Your task to perform on an android device: Open the Play Movies app and select the watchlist tab. Image 0: 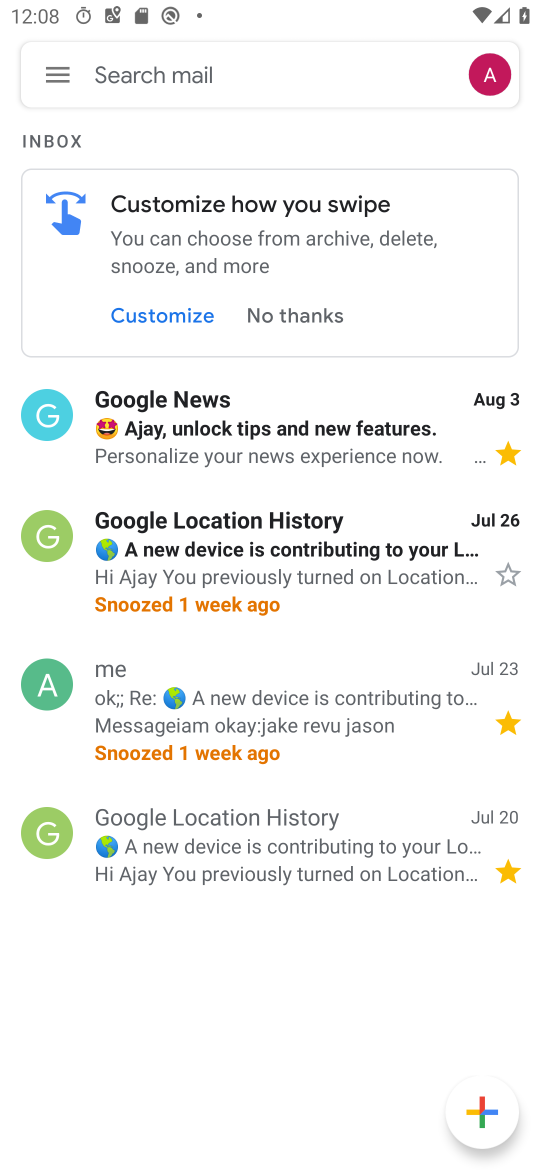
Step 0: press back button
Your task to perform on an android device: Open the Play Movies app and select the watchlist tab. Image 1: 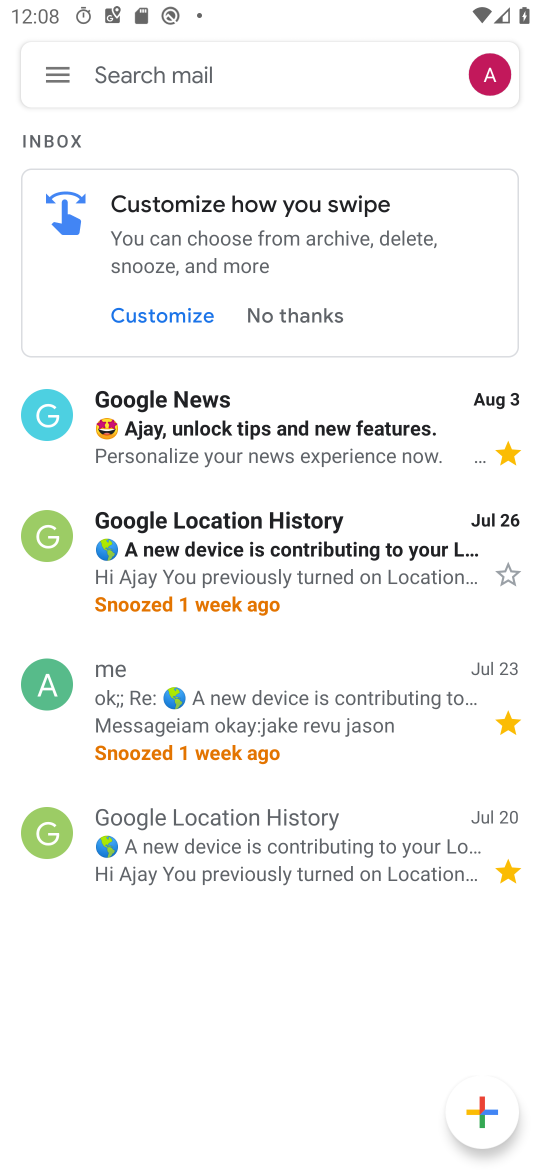
Step 1: press back button
Your task to perform on an android device: Open the Play Movies app and select the watchlist tab. Image 2: 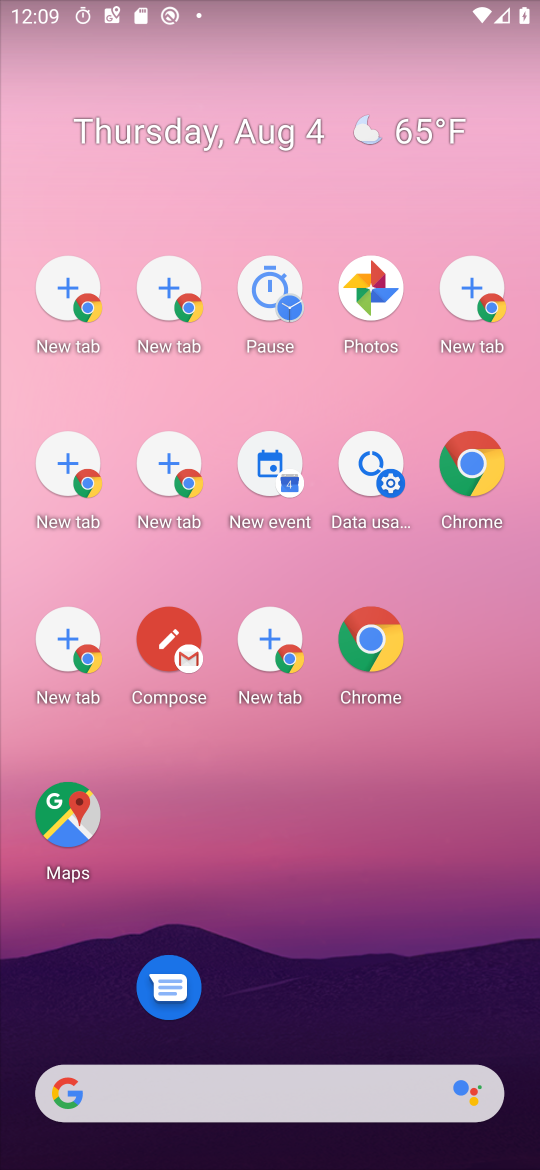
Step 2: drag from (278, 643) to (339, 384)
Your task to perform on an android device: Open the Play Movies app and select the watchlist tab. Image 3: 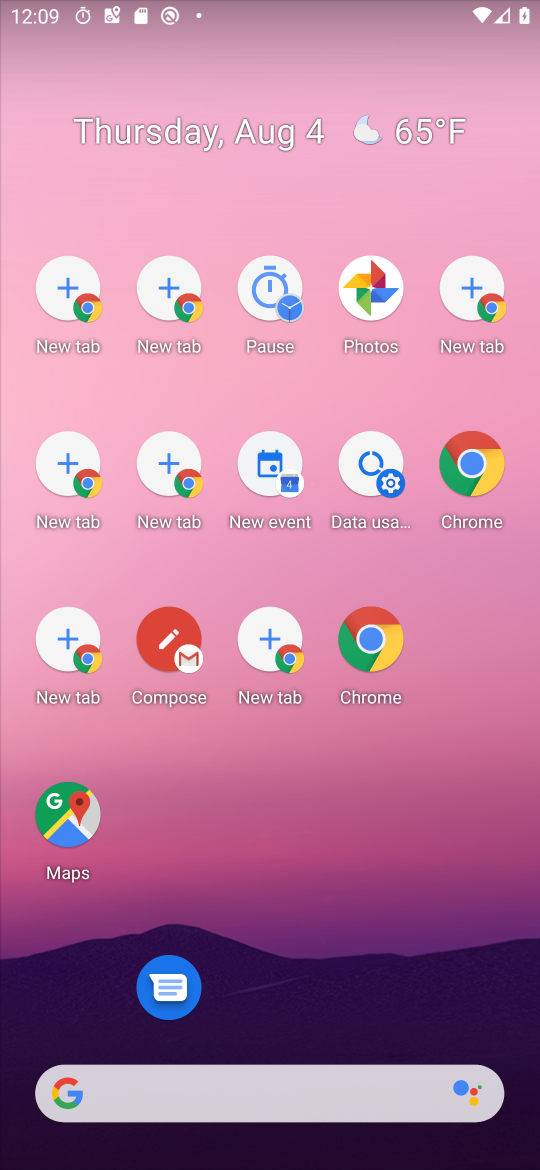
Step 3: drag from (271, 161) to (124, 308)
Your task to perform on an android device: Open the Play Movies app and select the watchlist tab. Image 4: 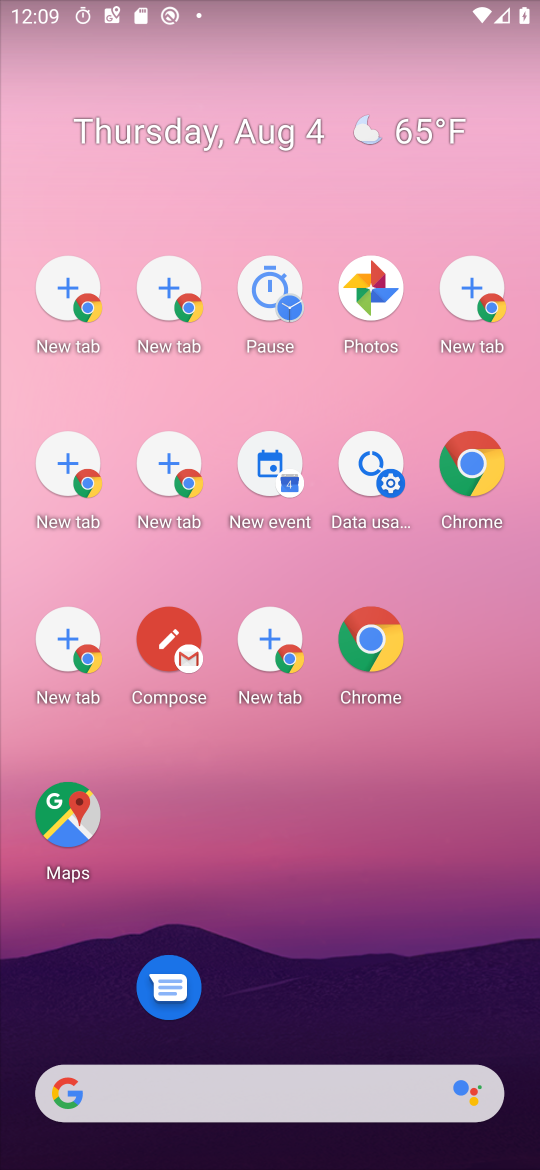
Step 4: drag from (222, 505) to (281, 265)
Your task to perform on an android device: Open the Play Movies app and select the watchlist tab. Image 5: 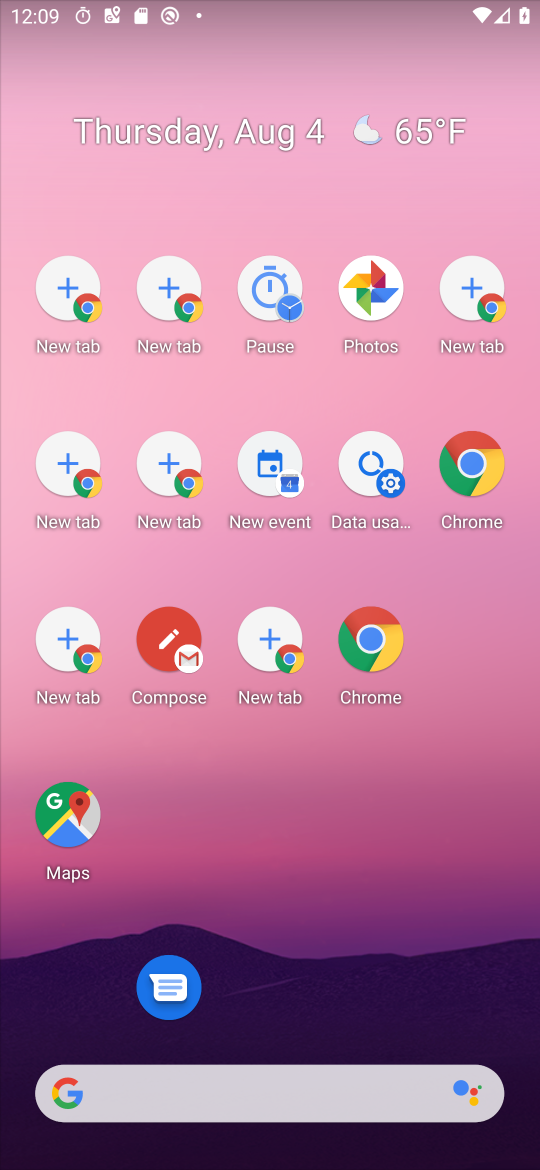
Step 5: drag from (331, 540) to (248, 212)
Your task to perform on an android device: Open the Play Movies app and select the watchlist tab. Image 6: 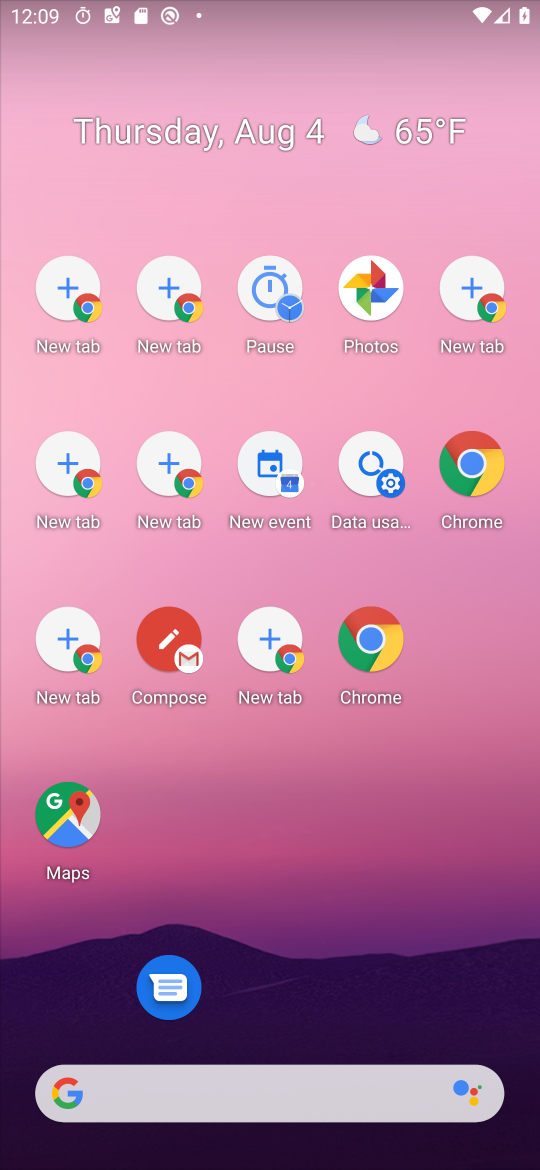
Step 6: drag from (236, 205) to (208, 161)
Your task to perform on an android device: Open the Play Movies app and select the watchlist tab. Image 7: 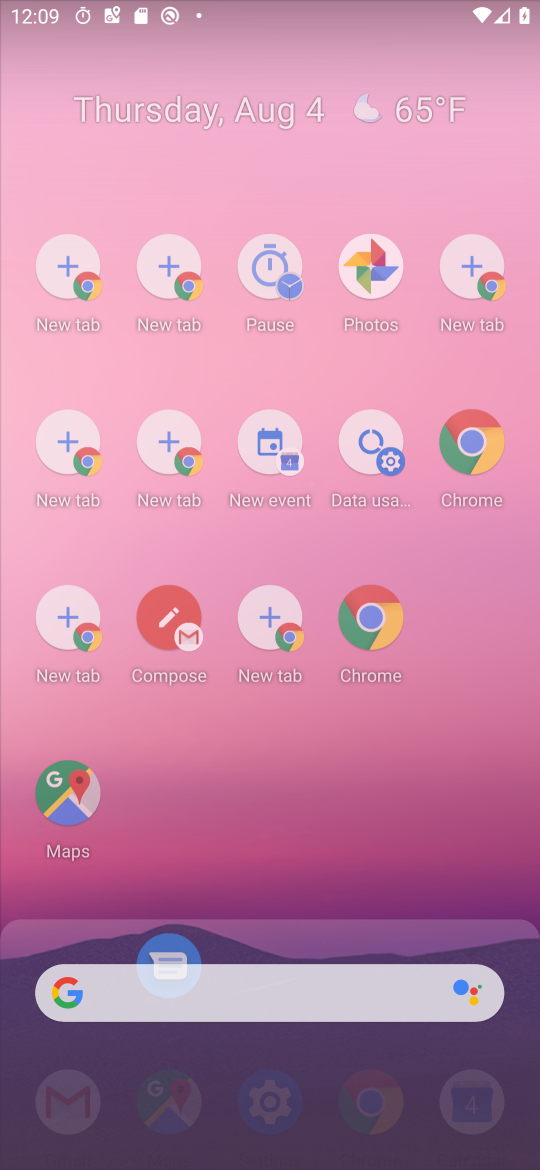
Step 7: drag from (410, 296) to (250, 413)
Your task to perform on an android device: Open the Play Movies app and select the watchlist tab. Image 8: 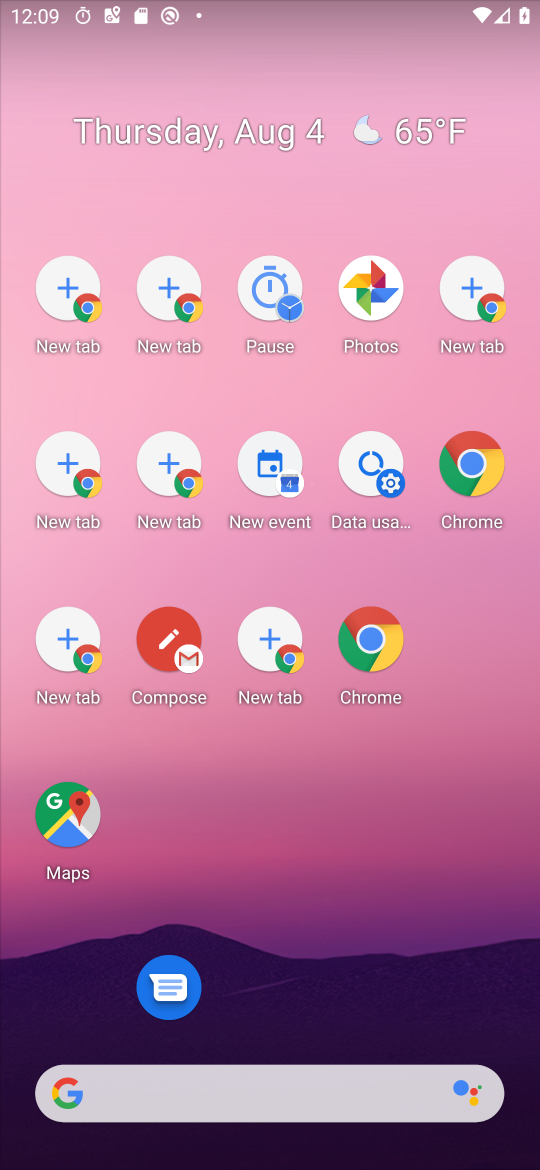
Step 8: drag from (273, 590) to (273, 318)
Your task to perform on an android device: Open the Play Movies app and select the watchlist tab. Image 9: 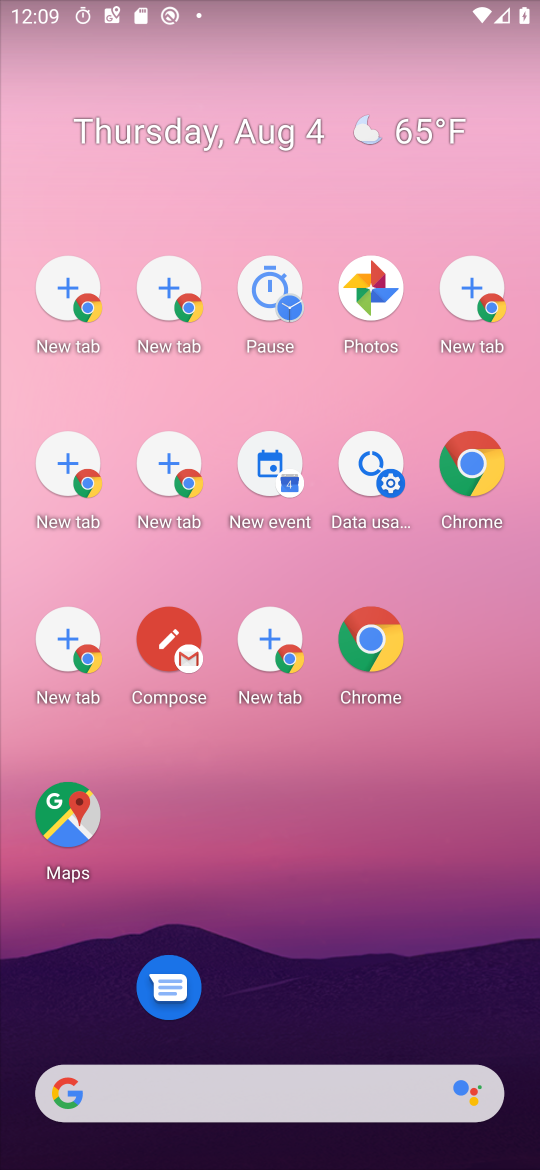
Step 9: drag from (285, 528) to (248, 263)
Your task to perform on an android device: Open the Play Movies app and select the watchlist tab. Image 10: 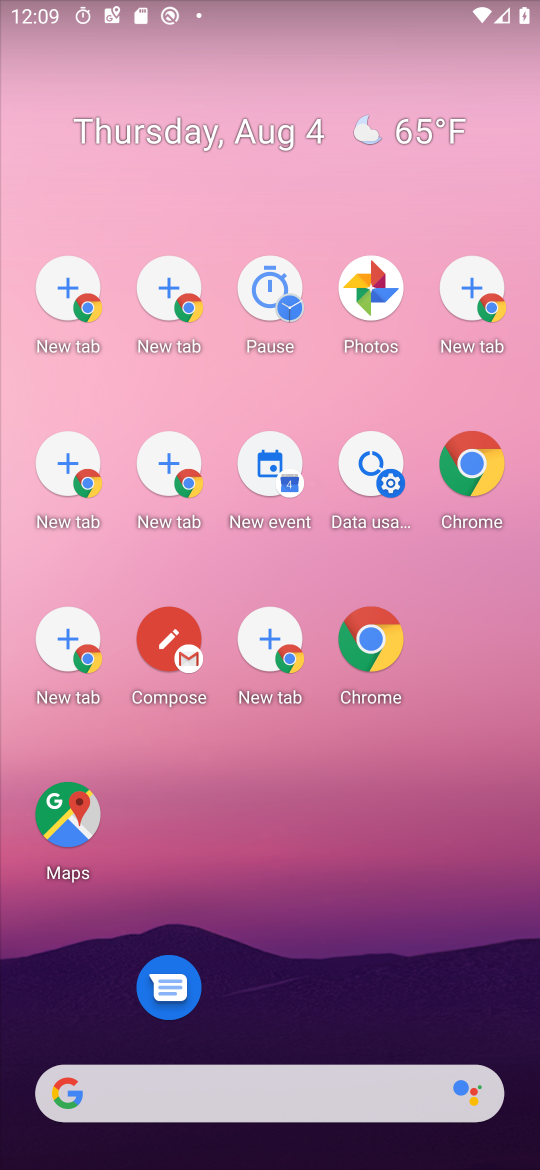
Step 10: drag from (347, 673) to (303, 362)
Your task to perform on an android device: Open the Play Movies app and select the watchlist tab. Image 11: 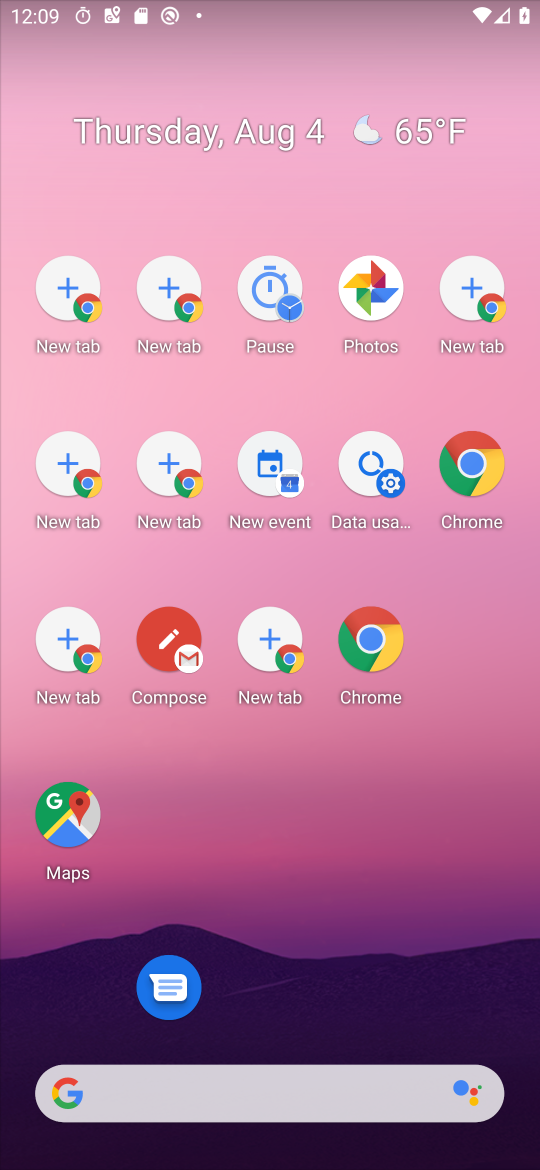
Step 11: drag from (334, 821) to (235, 68)
Your task to perform on an android device: Open the Play Movies app and select the watchlist tab. Image 12: 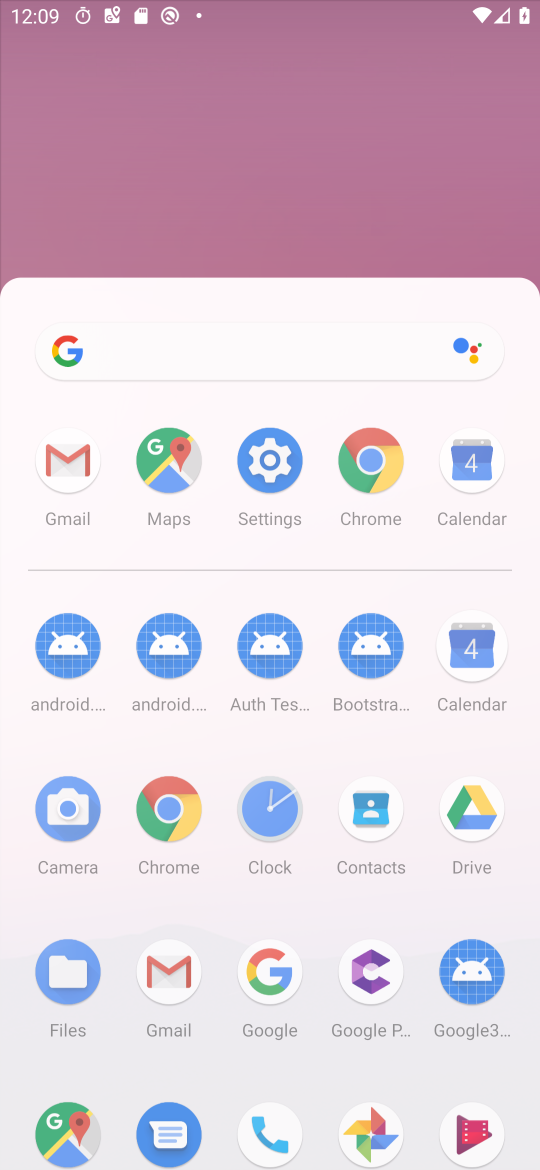
Step 12: drag from (353, 631) to (311, 283)
Your task to perform on an android device: Open the Play Movies app and select the watchlist tab. Image 13: 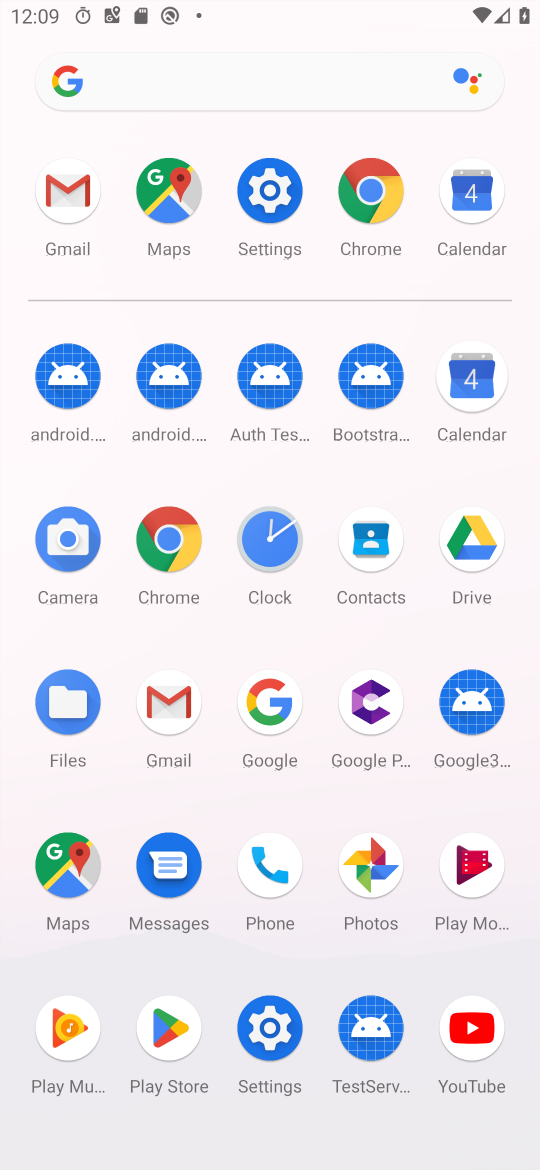
Step 13: click (470, 864)
Your task to perform on an android device: Open the Play Movies app and select the watchlist tab. Image 14: 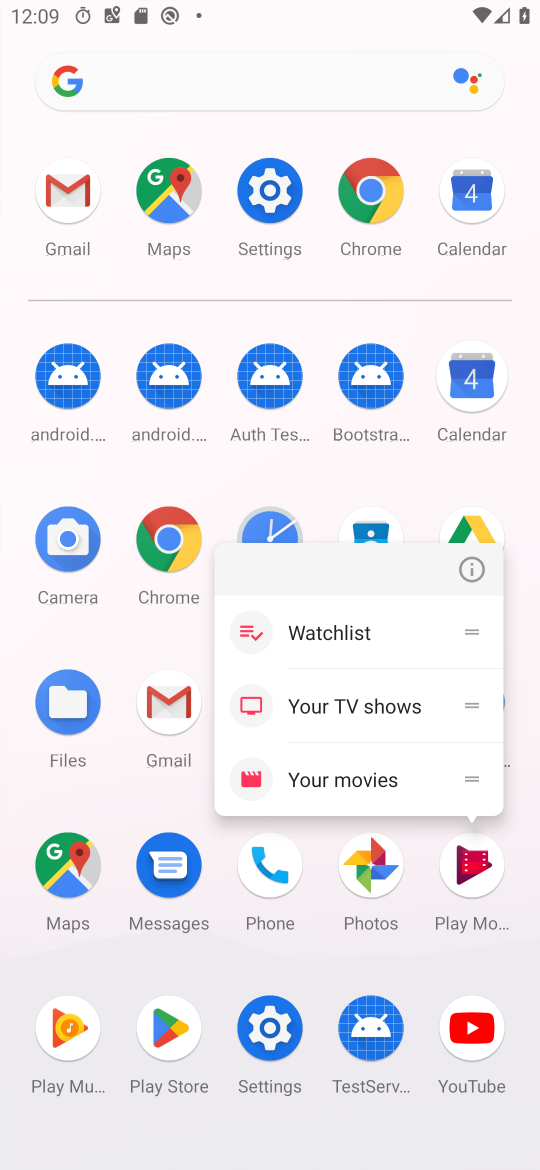
Step 14: click (317, 634)
Your task to perform on an android device: Open the Play Movies app and select the watchlist tab. Image 15: 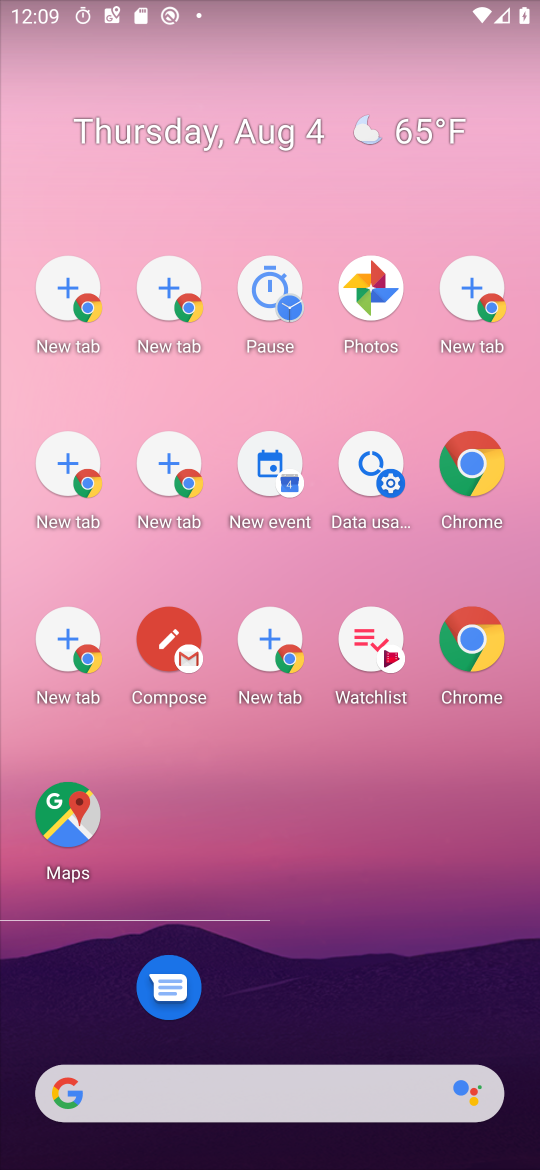
Step 15: drag from (250, 721) to (184, 304)
Your task to perform on an android device: Open the Play Movies app and select the watchlist tab. Image 16: 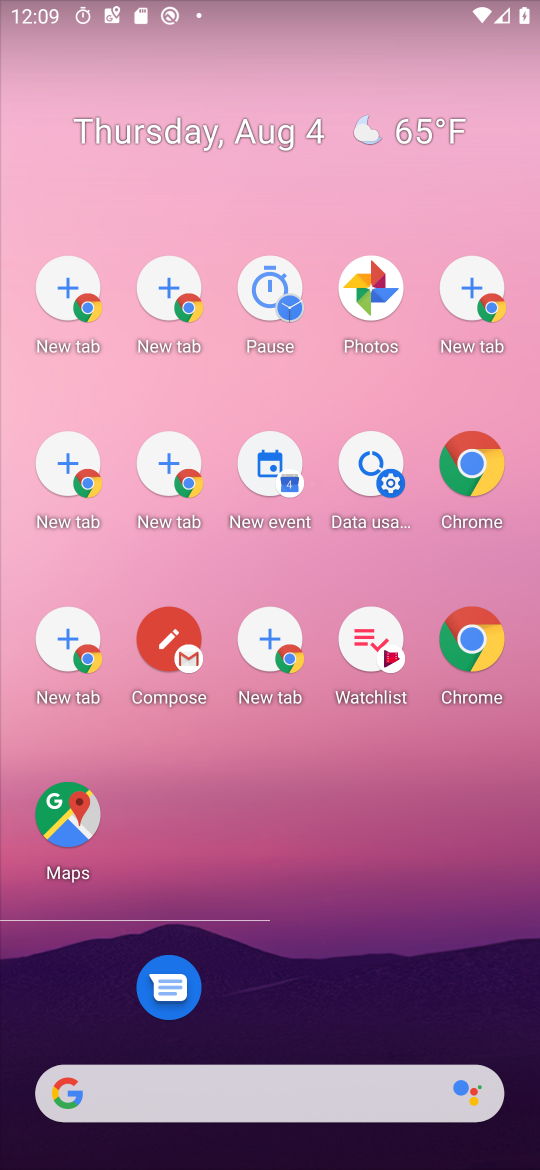
Step 16: drag from (310, 558) to (283, 369)
Your task to perform on an android device: Open the Play Movies app and select the watchlist tab. Image 17: 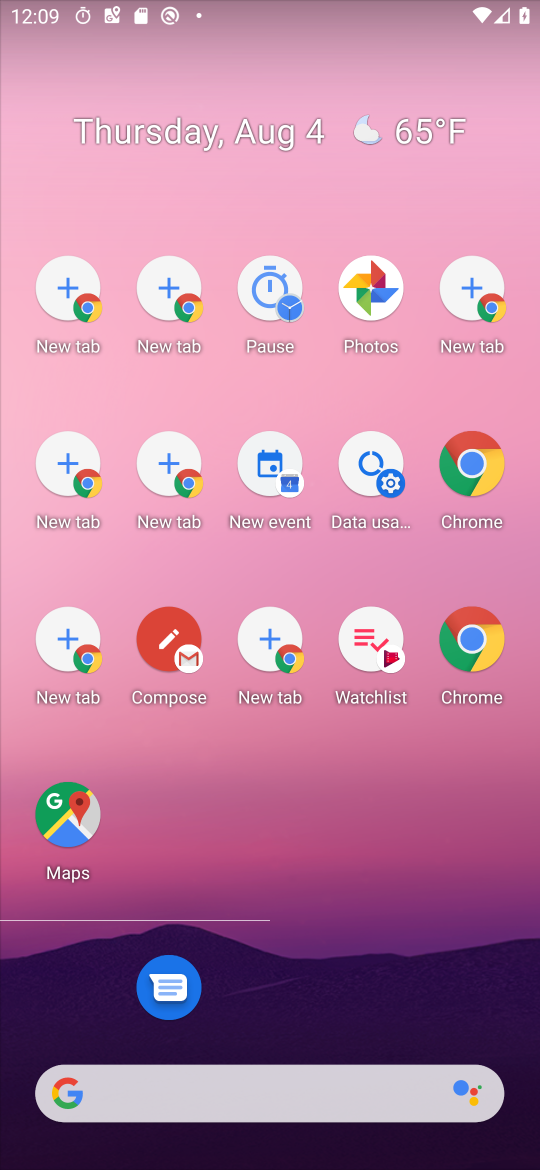
Step 17: drag from (397, 959) to (284, 315)
Your task to perform on an android device: Open the Play Movies app and select the watchlist tab. Image 18: 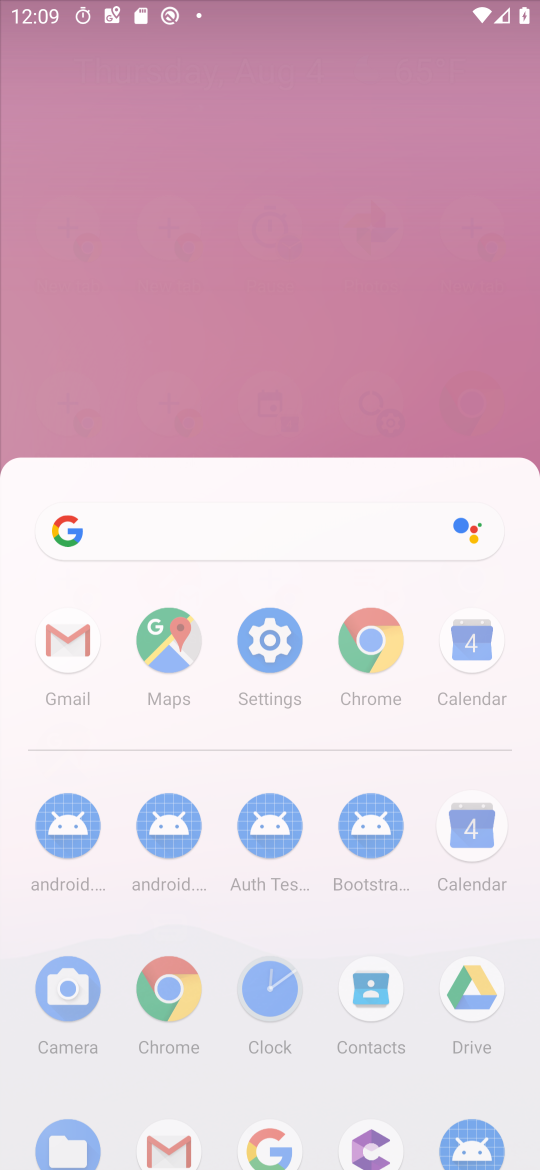
Step 18: drag from (350, 809) to (299, 412)
Your task to perform on an android device: Open the Play Movies app and select the watchlist tab. Image 19: 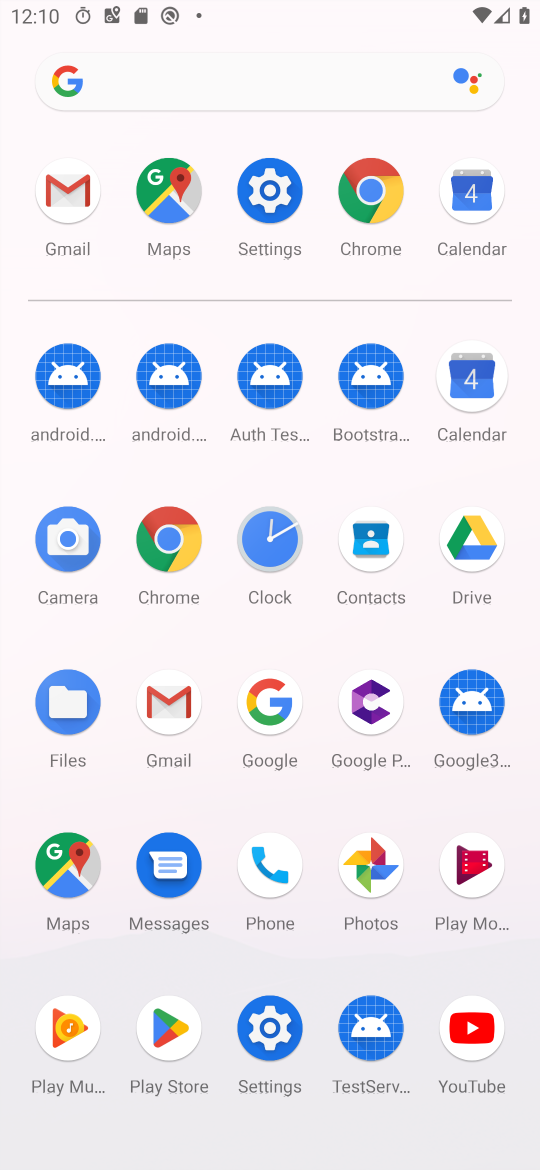
Step 19: click (474, 857)
Your task to perform on an android device: Open the Play Movies app and select the watchlist tab. Image 20: 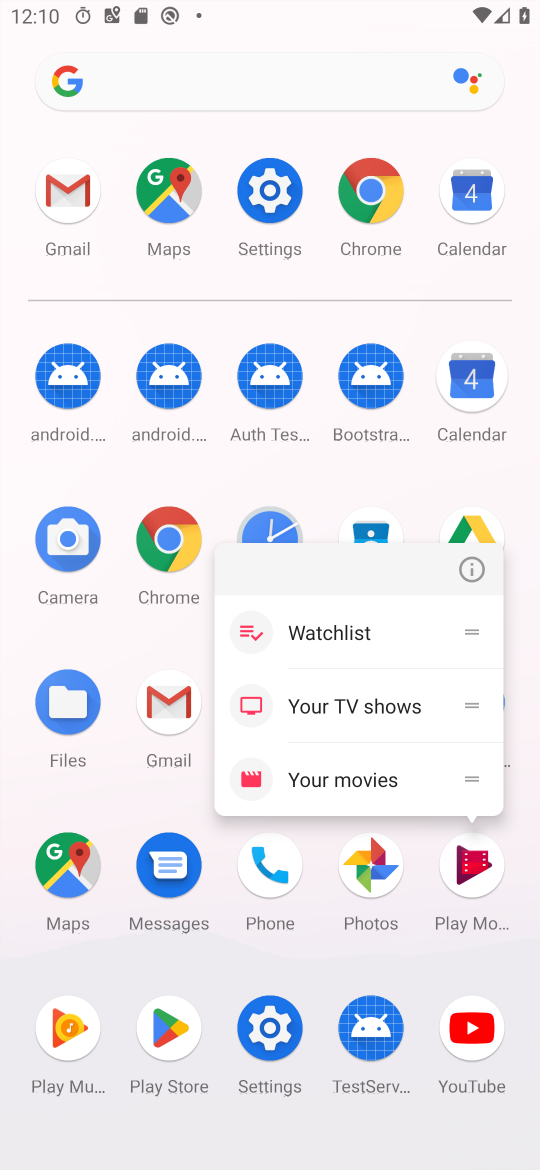
Step 20: click (316, 641)
Your task to perform on an android device: Open the Play Movies app and select the watchlist tab. Image 21: 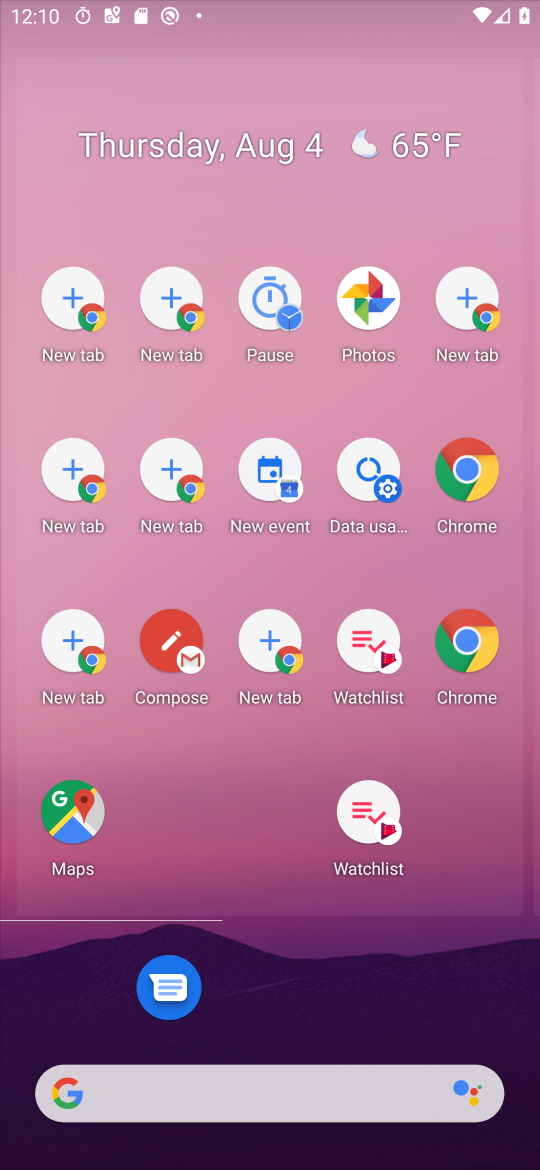
Step 21: task complete